Your task to perform on an android device: empty trash in google photos Image 0: 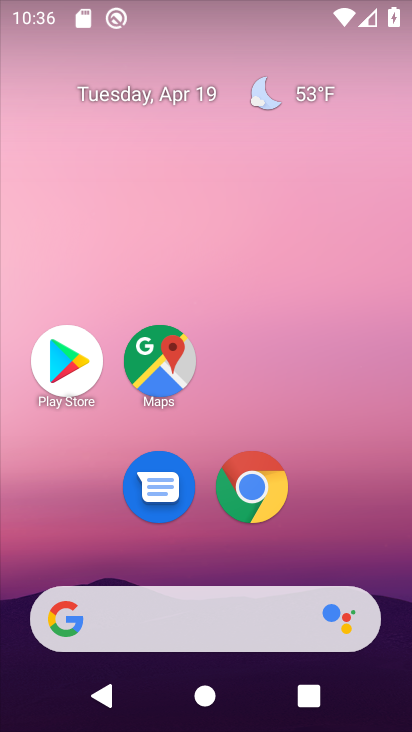
Step 0: drag from (356, 543) to (231, 21)
Your task to perform on an android device: empty trash in google photos Image 1: 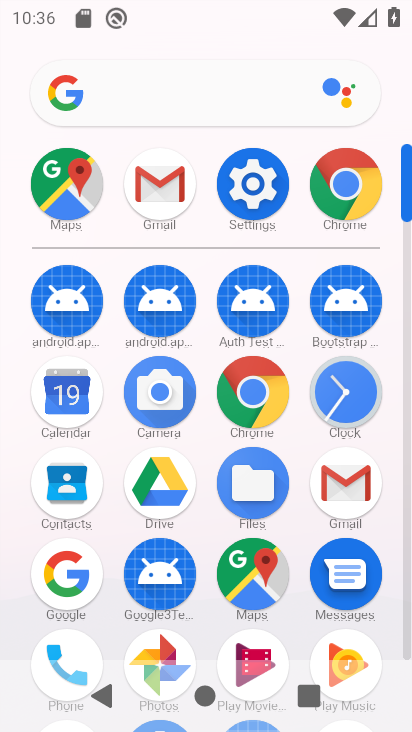
Step 1: drag from (4, 546) to (2, 207)
Your task to perform on an android device: empty trash in google photos Image 2: 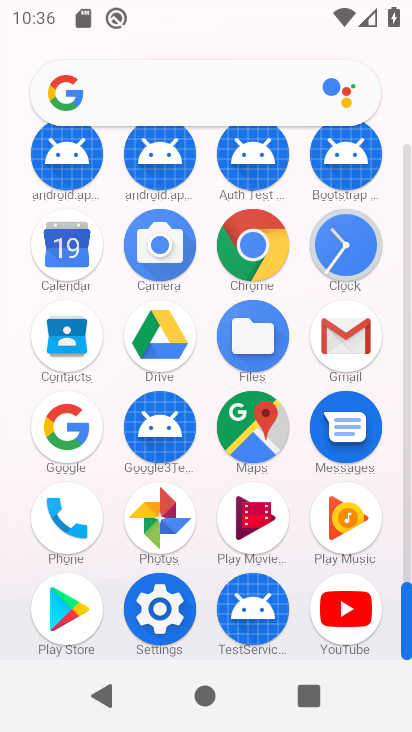
Step 2: click (162, 505)
Your task to perform on an android device: empty trash in google photos Image 3: 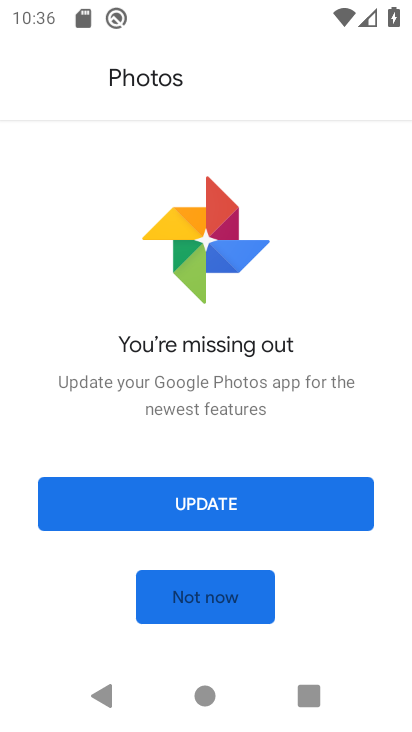
Step 3: click (214, 586)
Your task to perform on an android device: empty trash in google photos Image 4: 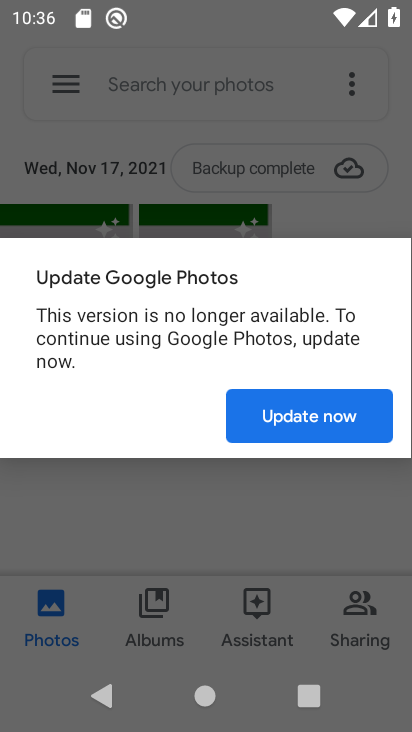
Step 4: click (308, 412)
Your task to perform on an android device: empty trash in google photos Image 5: 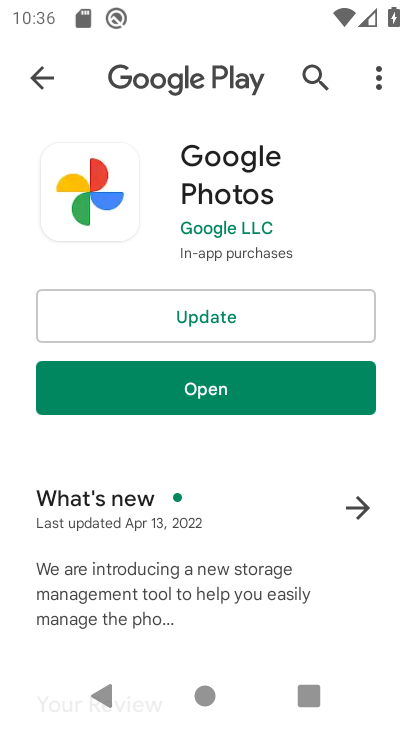
Step 5: click (279, 310)
Your task to perform on an android device: empty trash in google photos Image 6: 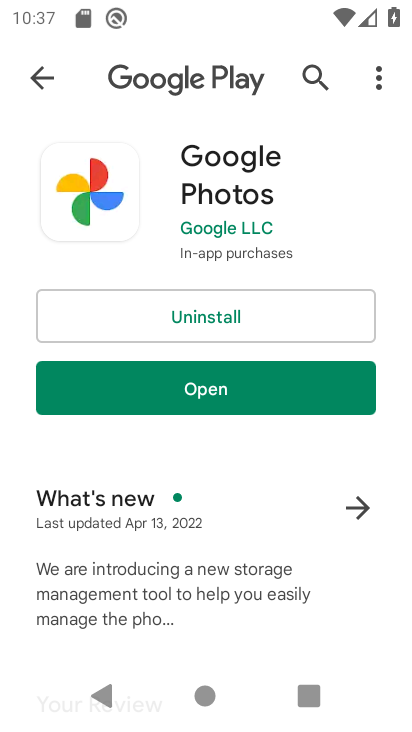
Step 6: click (235, 384)
Your task to perform on an android device: empty trash in google photos Image 7: 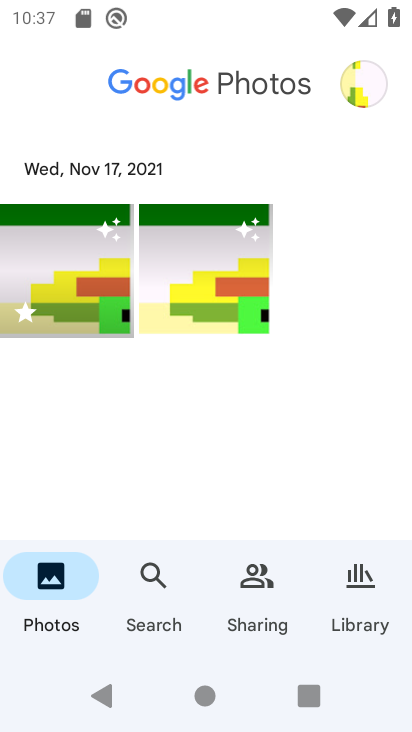
Step 7: click (352, 602)
Your task to perform on an android device: empty trash in google photos Image 8: 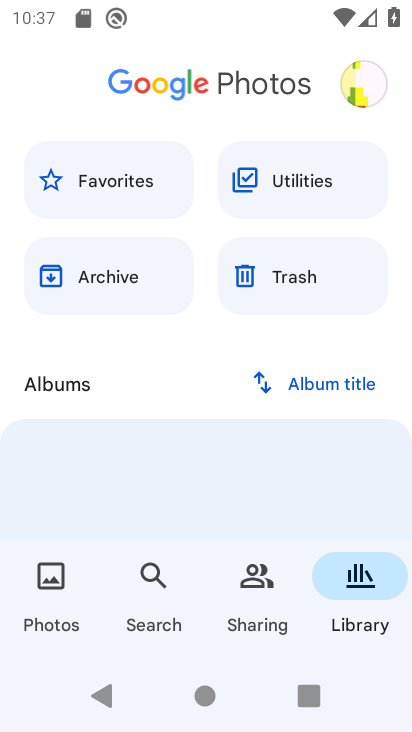
Step 8: click (314, 273)
Your task to perform on an android device: empty trash in google photos Image 9: 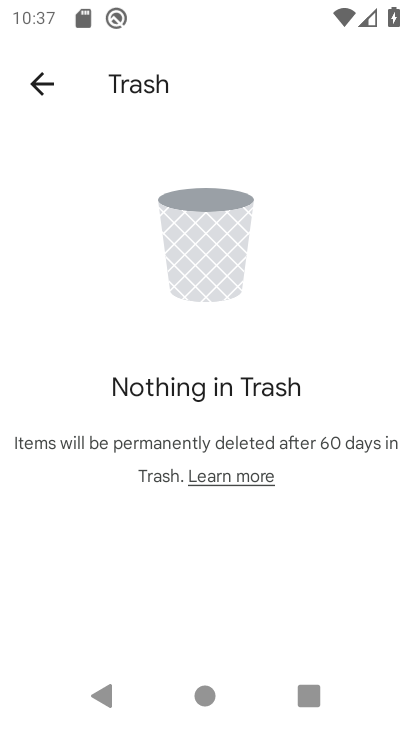
Step 9: task complete